Your task to perform on an android device: Show me the alarms in the clock app Image 0: 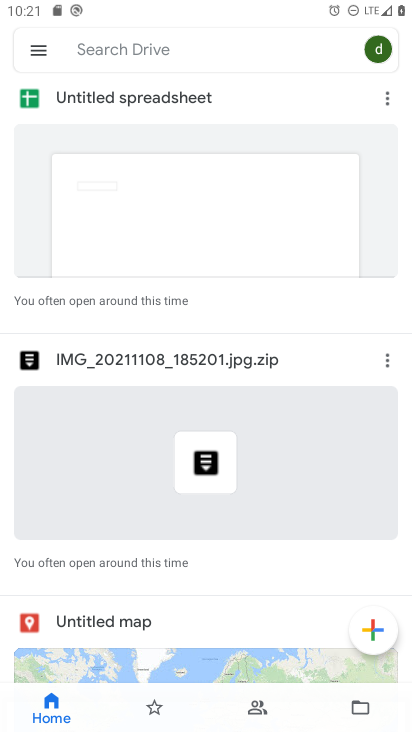
Step 0: press home button
Your task to perform on an android device: Show me the alarms in the clock app Image 1: 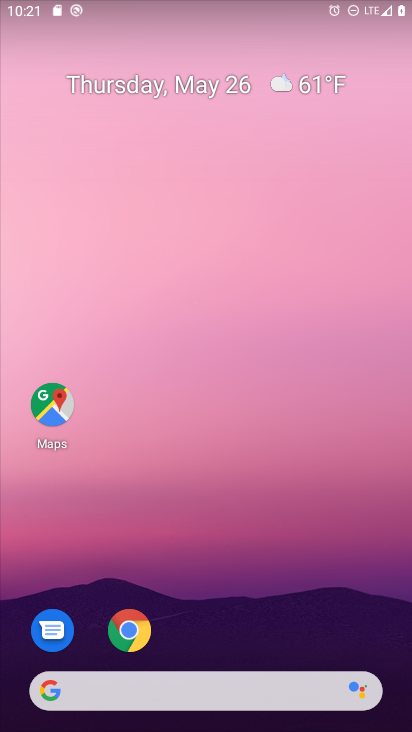
Step 1: drag from (190, 659) to (219, 5)
Your task to perform on an android device: Show me the alarms in the clock app Image 2: 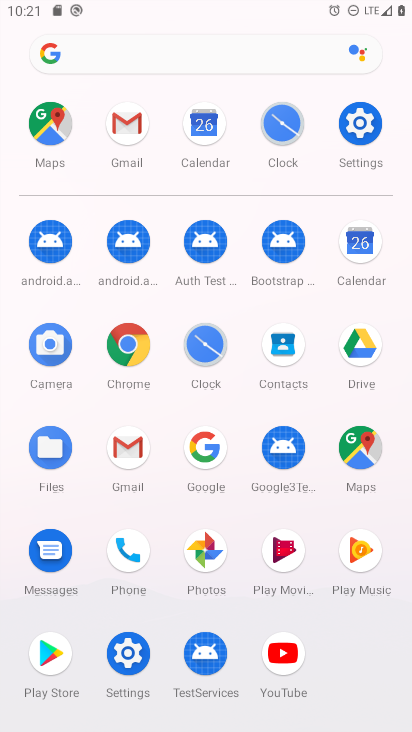
Step 2: click (197, 354)
Your task to perform on an android device: Show me the alarms in the clock app Image 3: 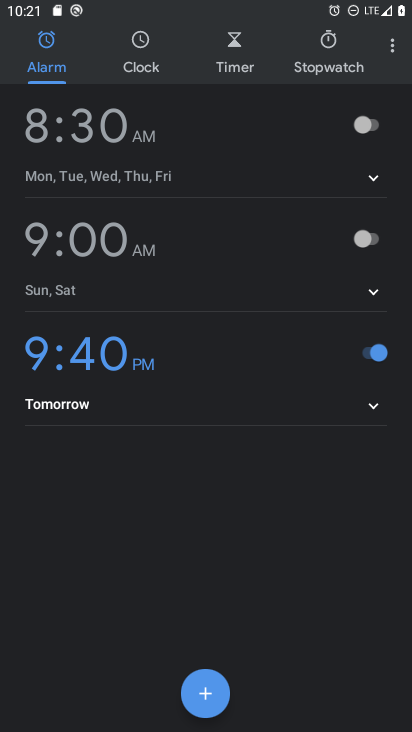
Step 3: task complete